Your task to perform on an android device: toggle location history Image 0: 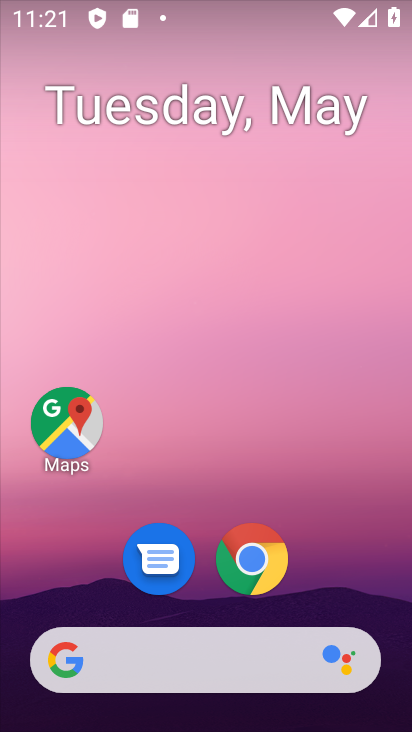
Step 0: drag from (110, 553) to (252, 132)
Your task to perform on an android device: toggle location history Image 1: 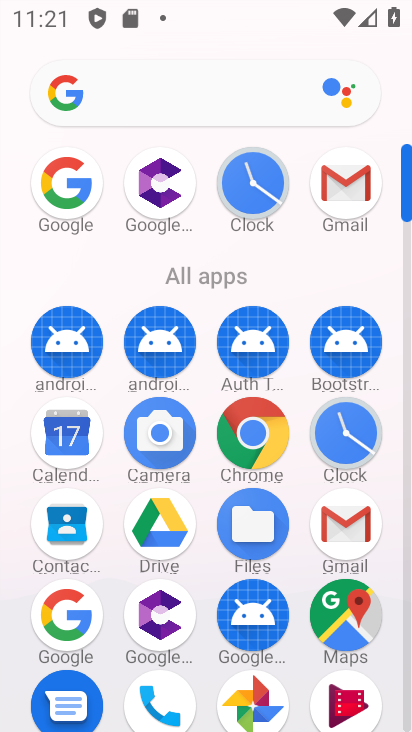
Step 1: drag from (189, 562) to (254, 336)
Your task to perform on an android device: toggle location history Image 2: 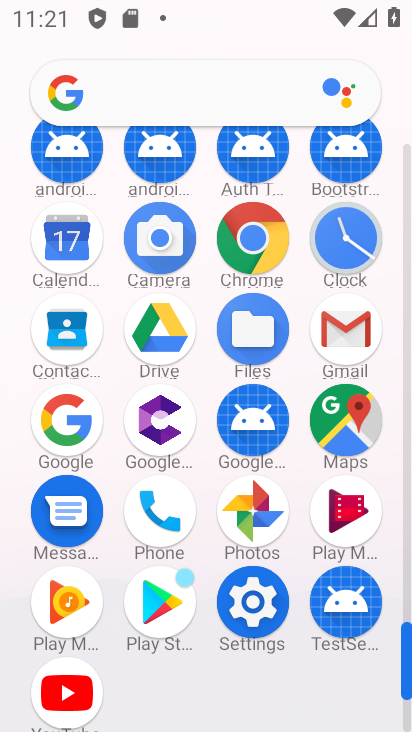
Step 2: click (249, 608)
Your task to perform on an android device: toggle location history Image 3: 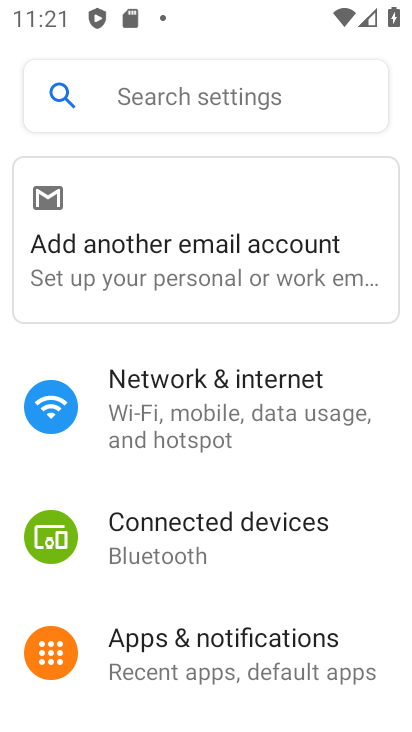
Step 3: drag from (186, 646) to (317, 215)
Your task to perform on an android device: toggle location history Image 4: 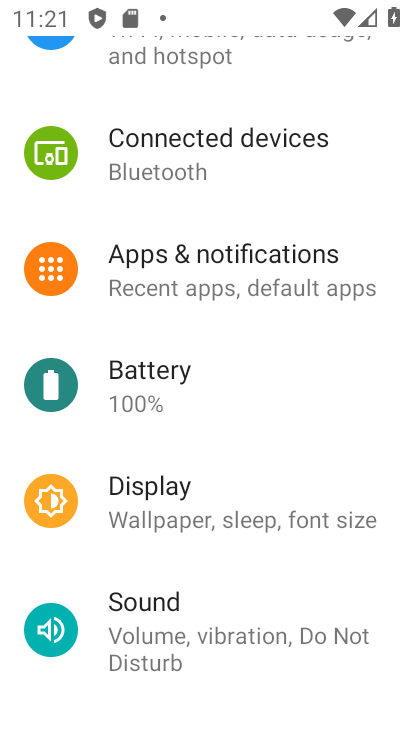
Step 4: drag from (207, 599) to (321, 229)
Your task to perform on an android device: toggle location history Image 5: 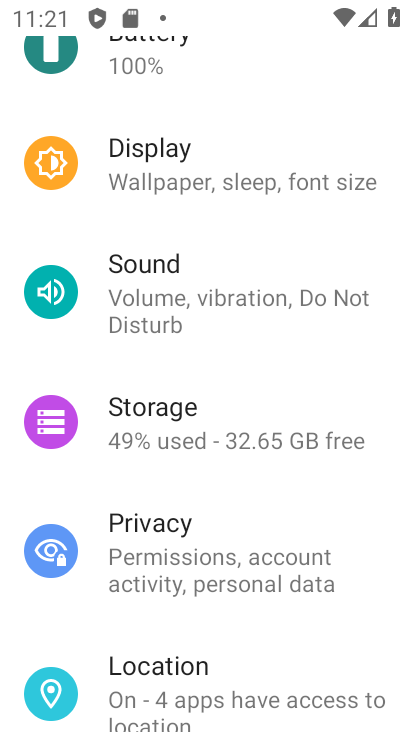
Step 5: click (188, 673)
Your task to perform on an android device: toggle location history Image 6: 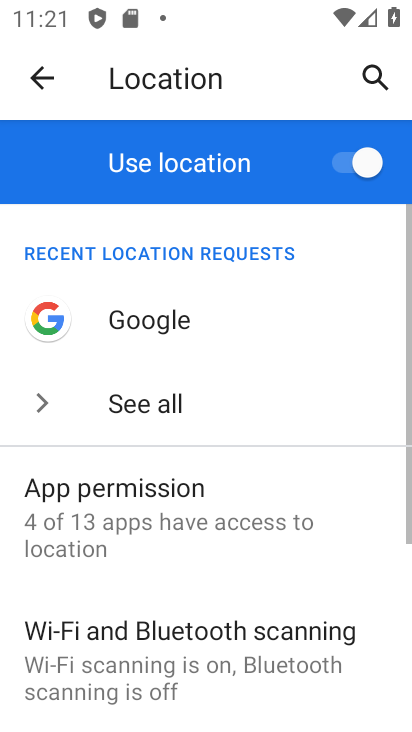
Step 6: drag from (194, 623) to (298, 298)
Your task to perform on an android device: toggle location history Image 7: 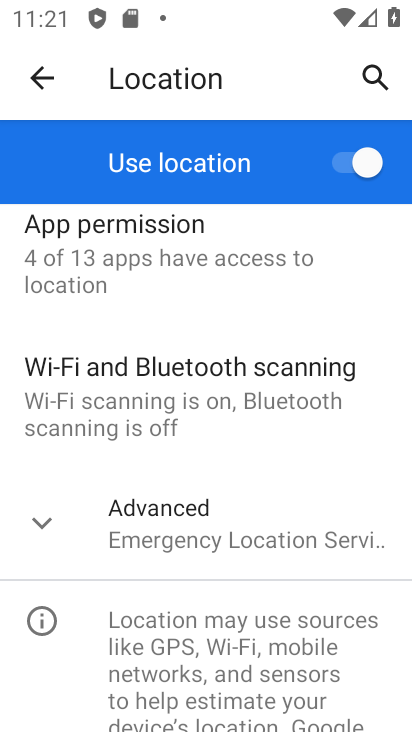
Step 7: click (237, 563)
Your task to perform on an android device: toggle location history Image 8: 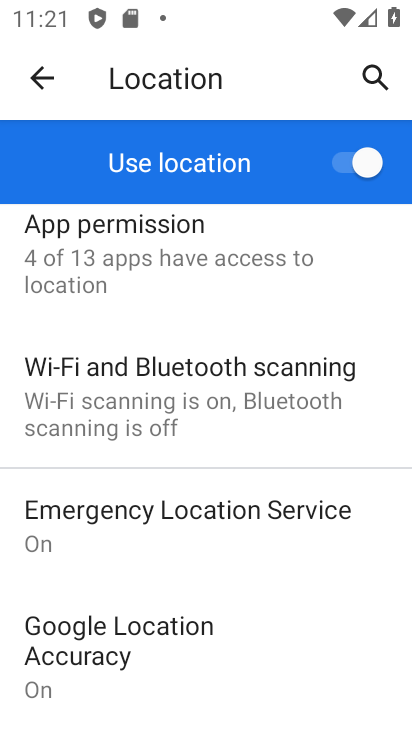
Step 8: drag from (235, 629) to (362, 243)
Your task to perform on an android device: toggle location history Image 9: 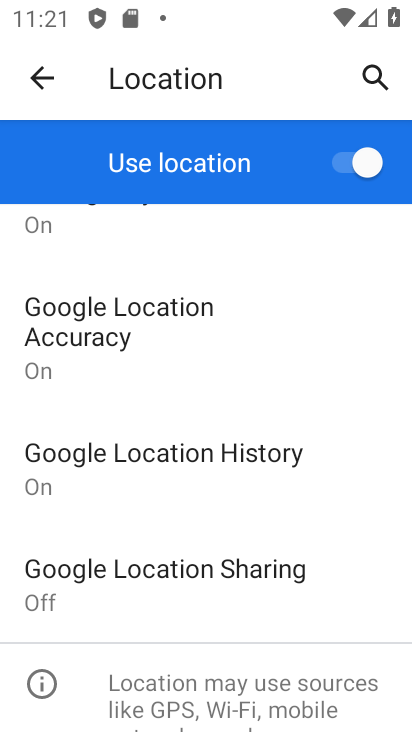
Step 9: click (250, 476)
Your task to perform on an android device: toggle location history Image 10: 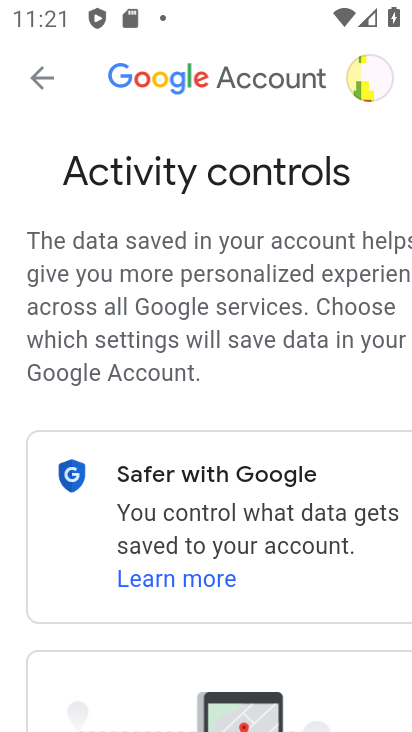
Step 10: drag from (197, 624) to (322, 75)
Your task to perform on an android device: toggle location history Image 11: 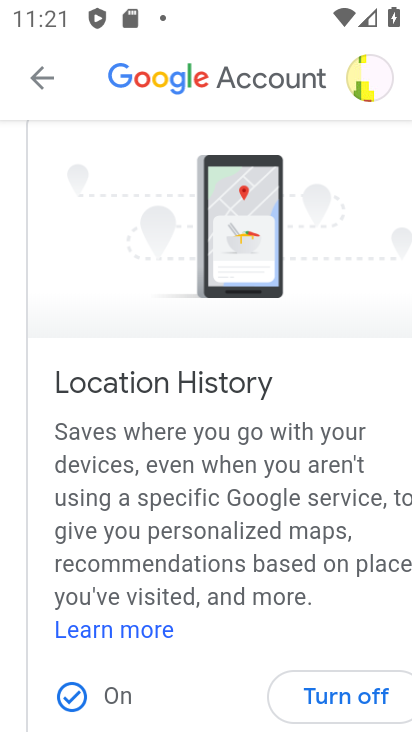
Step 11: drag from (189, 571) to (249, 310)
Your task to perform on an android device: toggle location history Image 12: 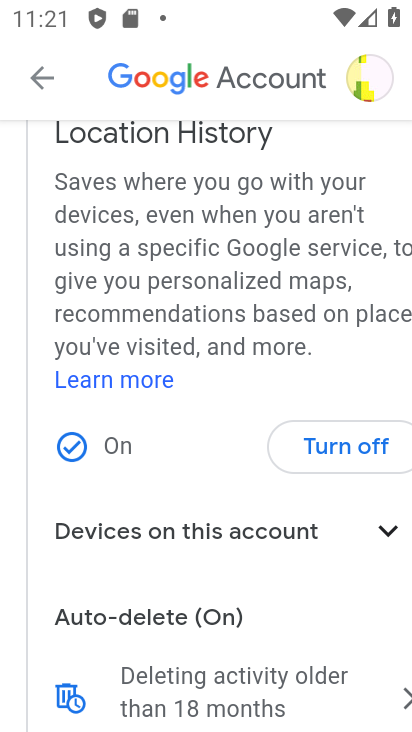
Step 12: click (348, 453)
Your task to perform on an android device: toggle location history Image 13: 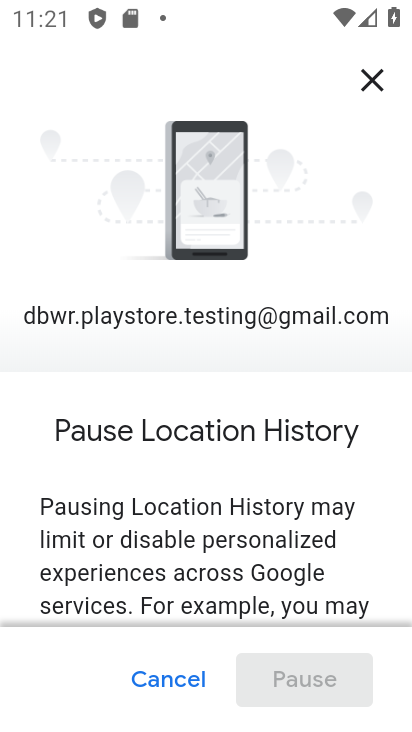
Step 13: drag from (191, 573) to (344, 164)
Your task to perform on an android device: toggle location history Image 14: 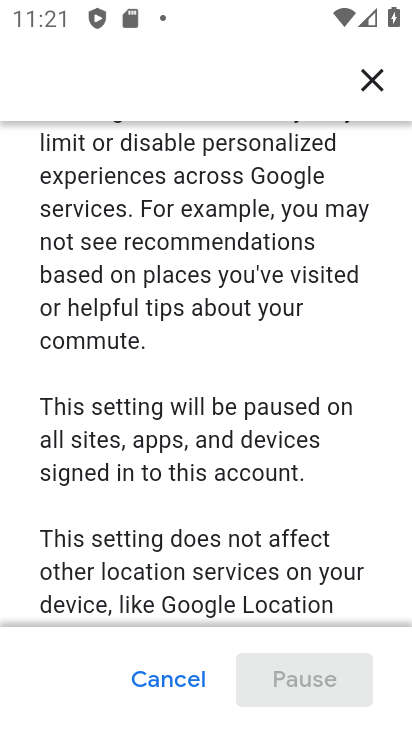
Step 14: drag from (184, 562) to (315, 147)
Your task to perform on an android device: toggle location history Image 15: 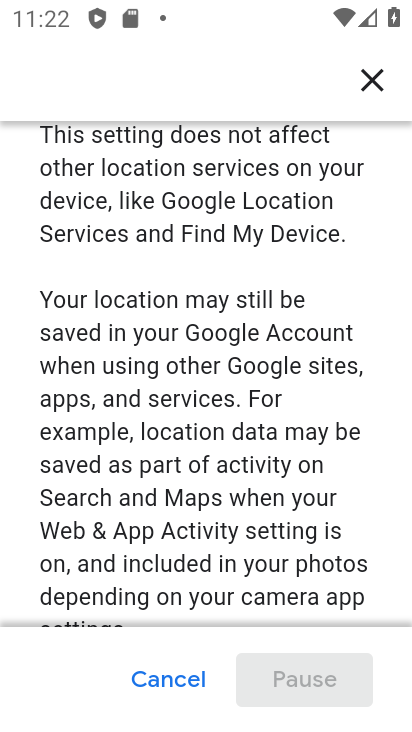
Step 15: drag from (214, 573) to (326, 192)
Your task to perform on an android device: toggle location history Image 16: 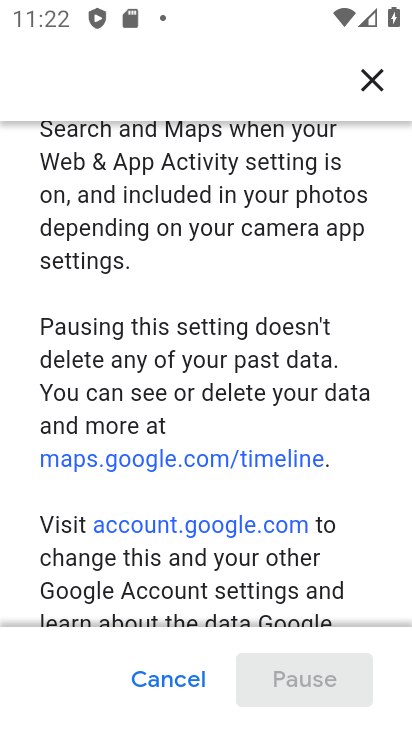
Step 16: drag from (236, 526) to (324, 130)
Your task to perform on an android device: toggle location history Image 17: 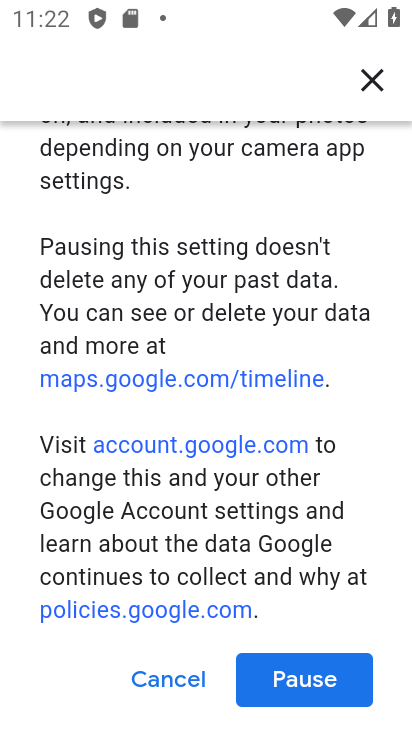
Step 17: click (305, 671)
Your task to perform on an android device: toggle location history Image 18: 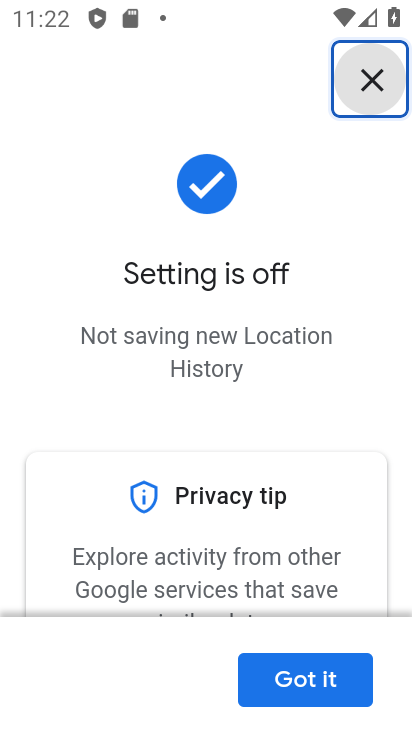
Step 18: click (298, 683)
Your task to perform on an android device: toggle location history Image 19: 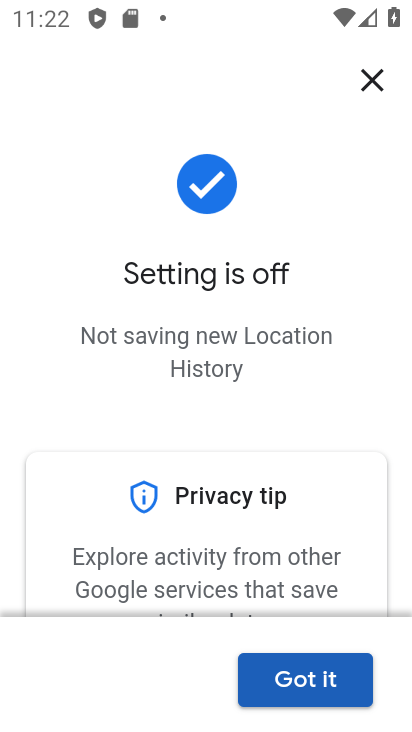
Step 19: click (307, 692)
Your task to perform on an android device: toggle location history Image 20: 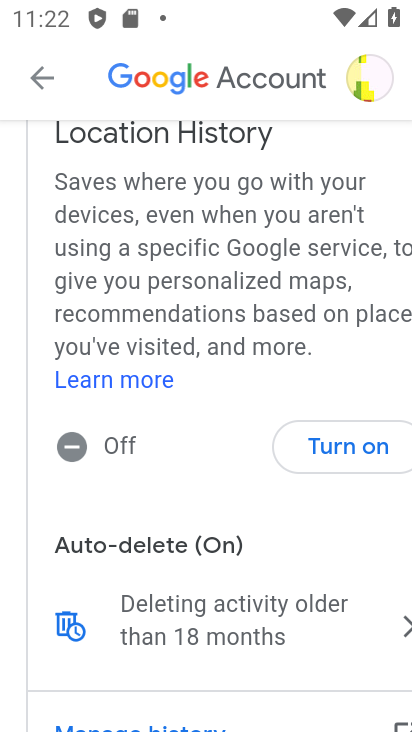
Step 20: task complete